Your task to perform on an android device: Toggle the flashlight Image 0: 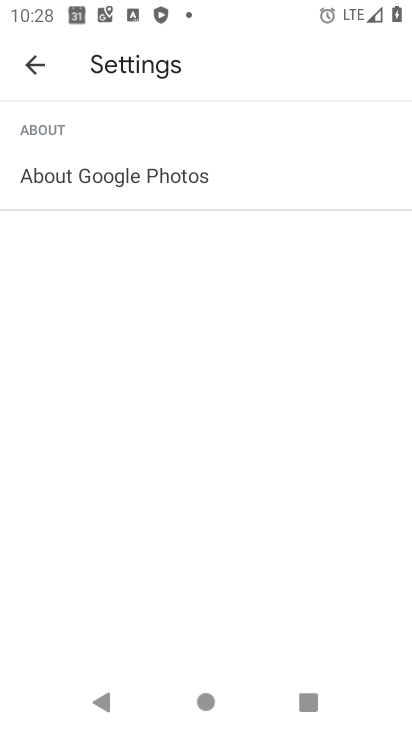
Step 0: press home button
Your task to perform on an android device: Toggle the flashlight Image 1: 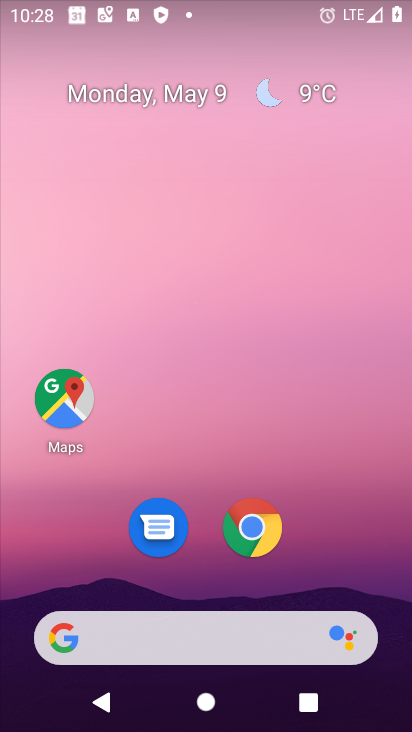
Step 1: task complete